Your task to perform on an android device: snooze an email in the gmail app Image 0: 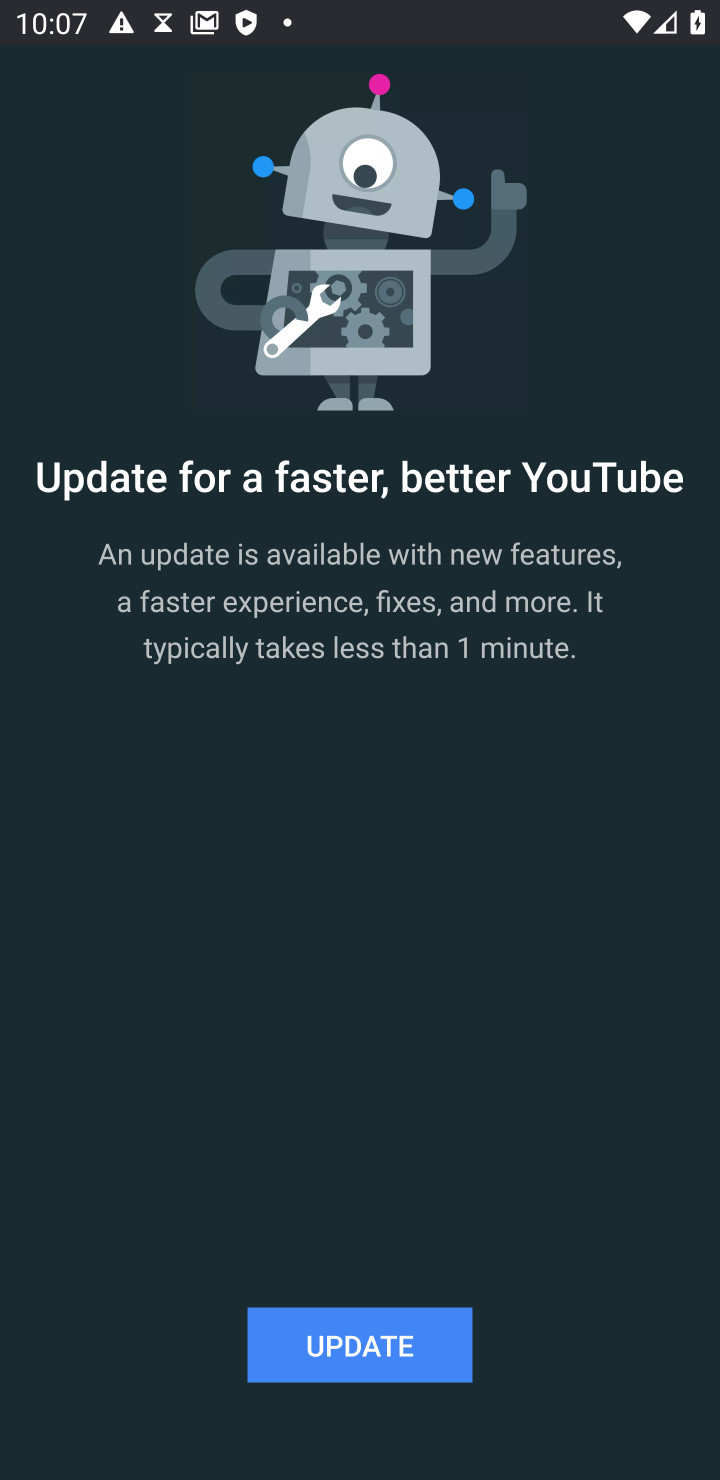
Step 0: press home button
Your task to perform on an android device: snooze an email in the gmail app Image 1: 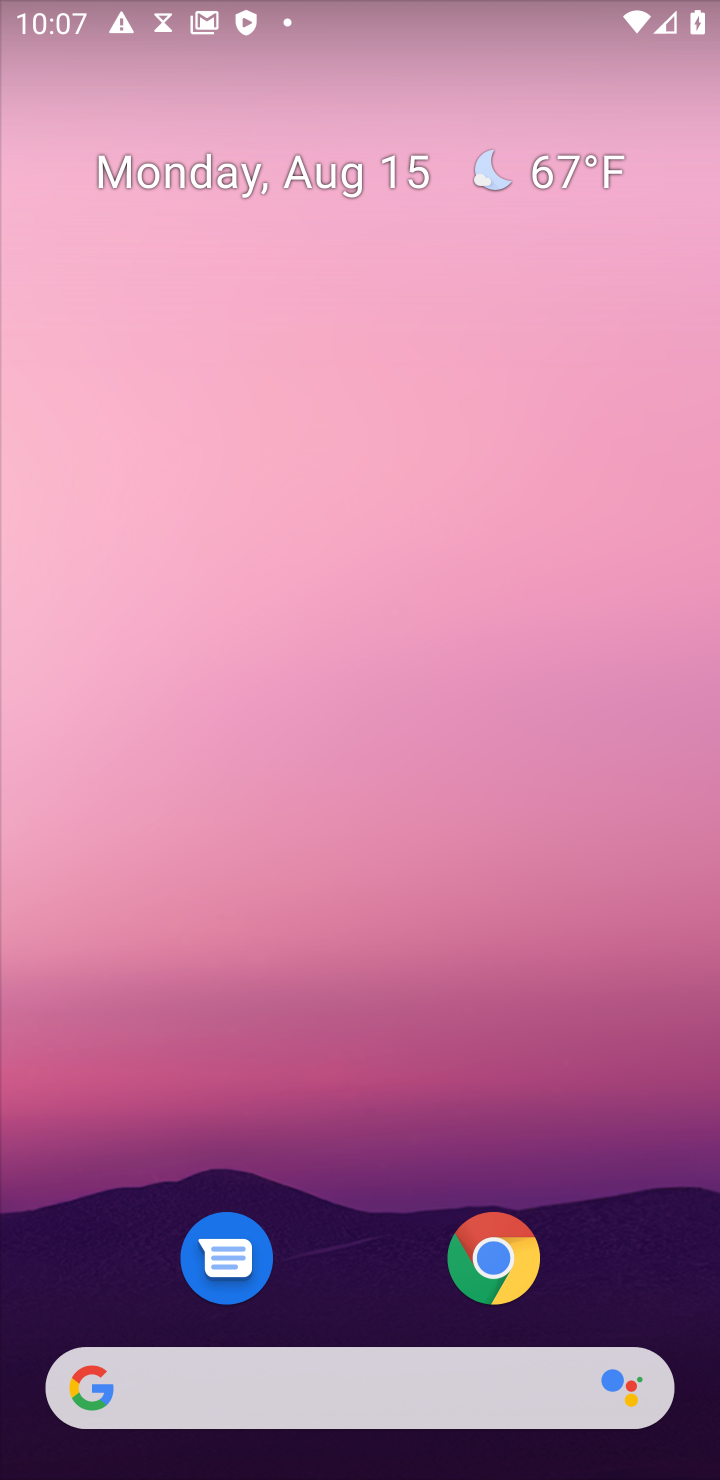
Step 1: drag from (400, 80) to (488, 36)
Your task to perform on an android device: snooze an email in the gmail app Image 2: 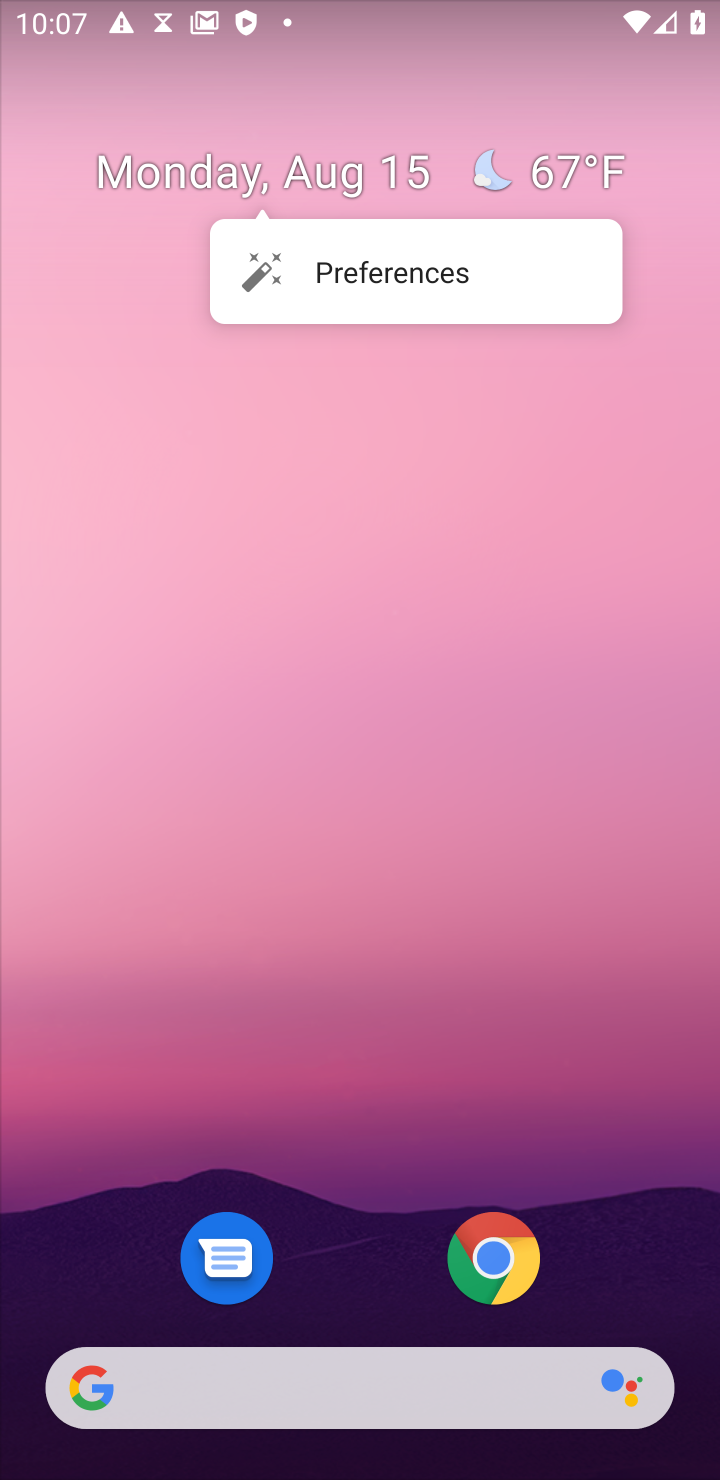
Step 2: click (357, 1293)
Your task to perform on an android device: snooze an email in the gmail app Image 3: 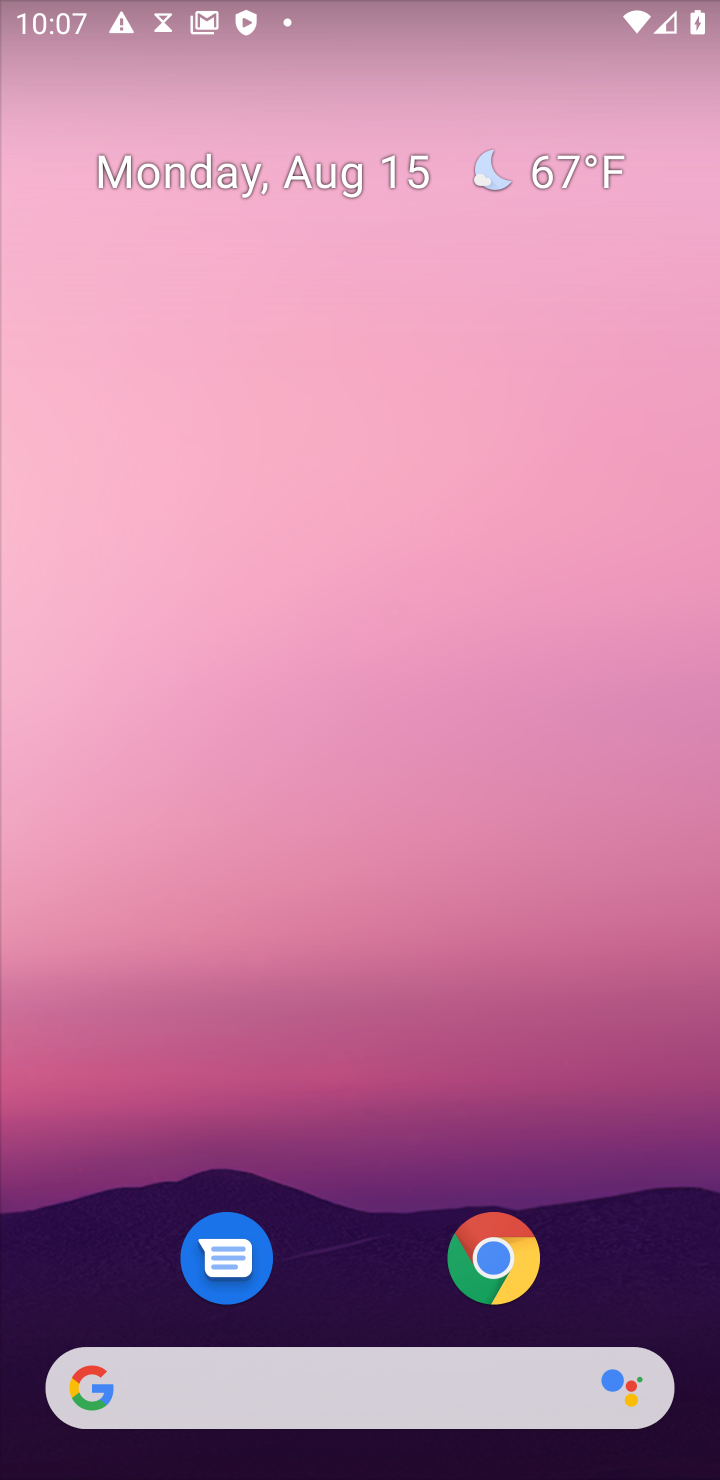
Step 3: drag from (357, 1166) to (672, 4)
Your task to perform on an android device: snooze an email in the gmail app Image 4: 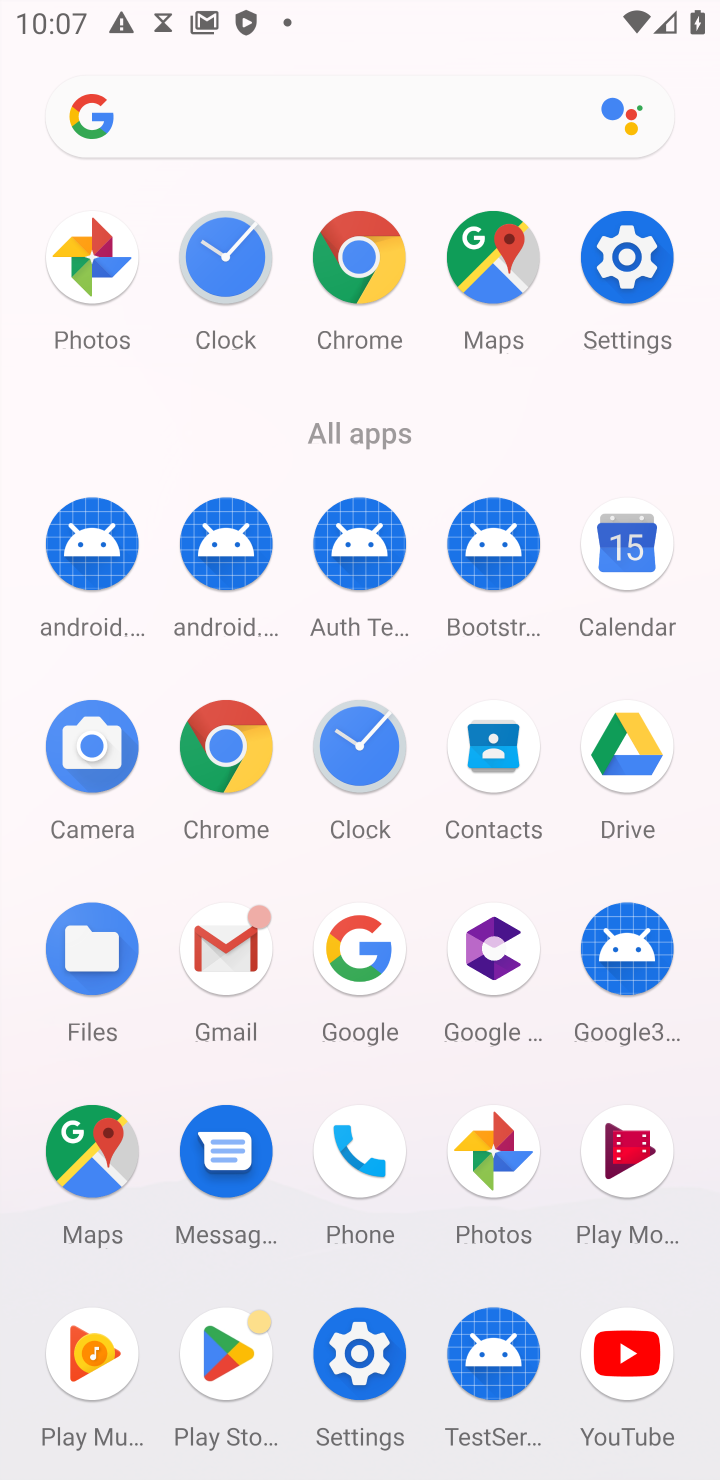
Step 4: click (215, 961)
Your task to perform on an android device: snooze an email in the gmail app Image 5: 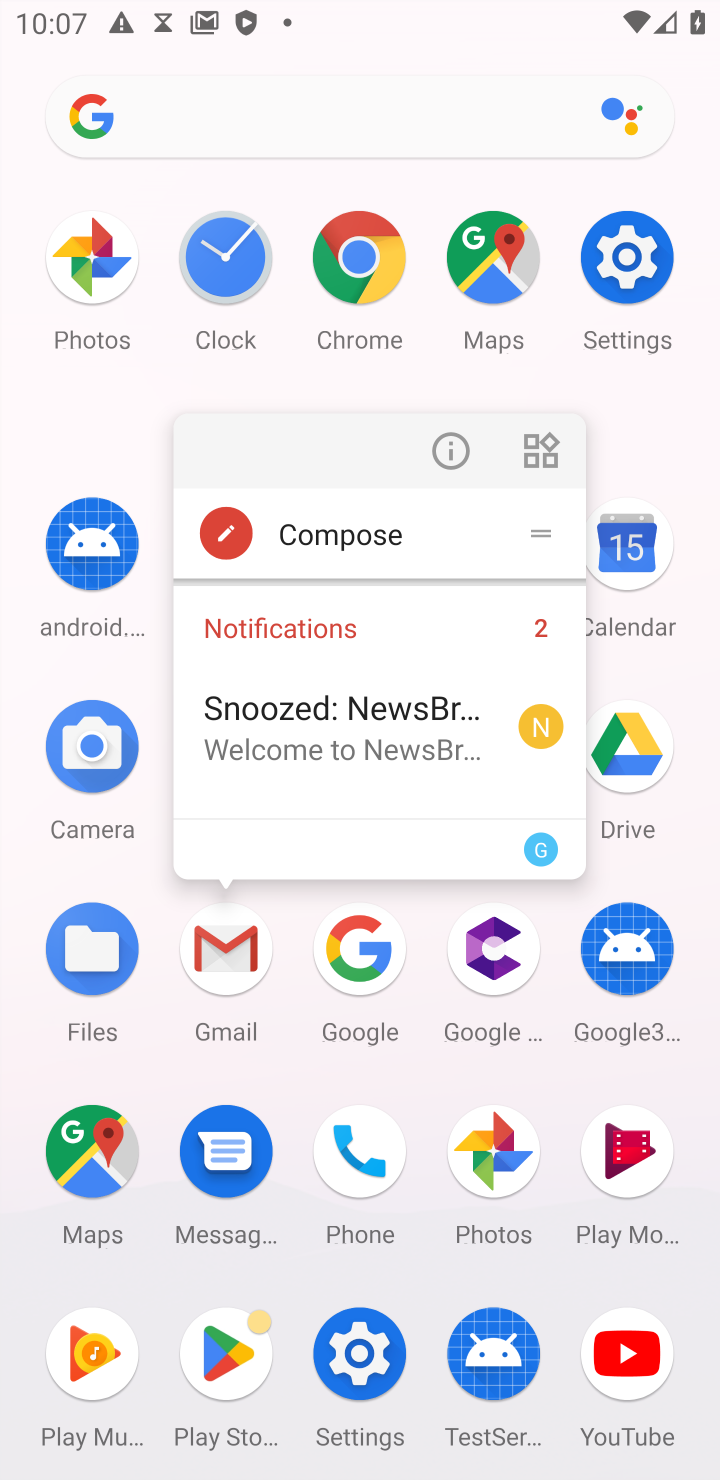
Step 5: click (221, 967)
Your task to perform on an android device: snooze an email in the gmail app Image 6: 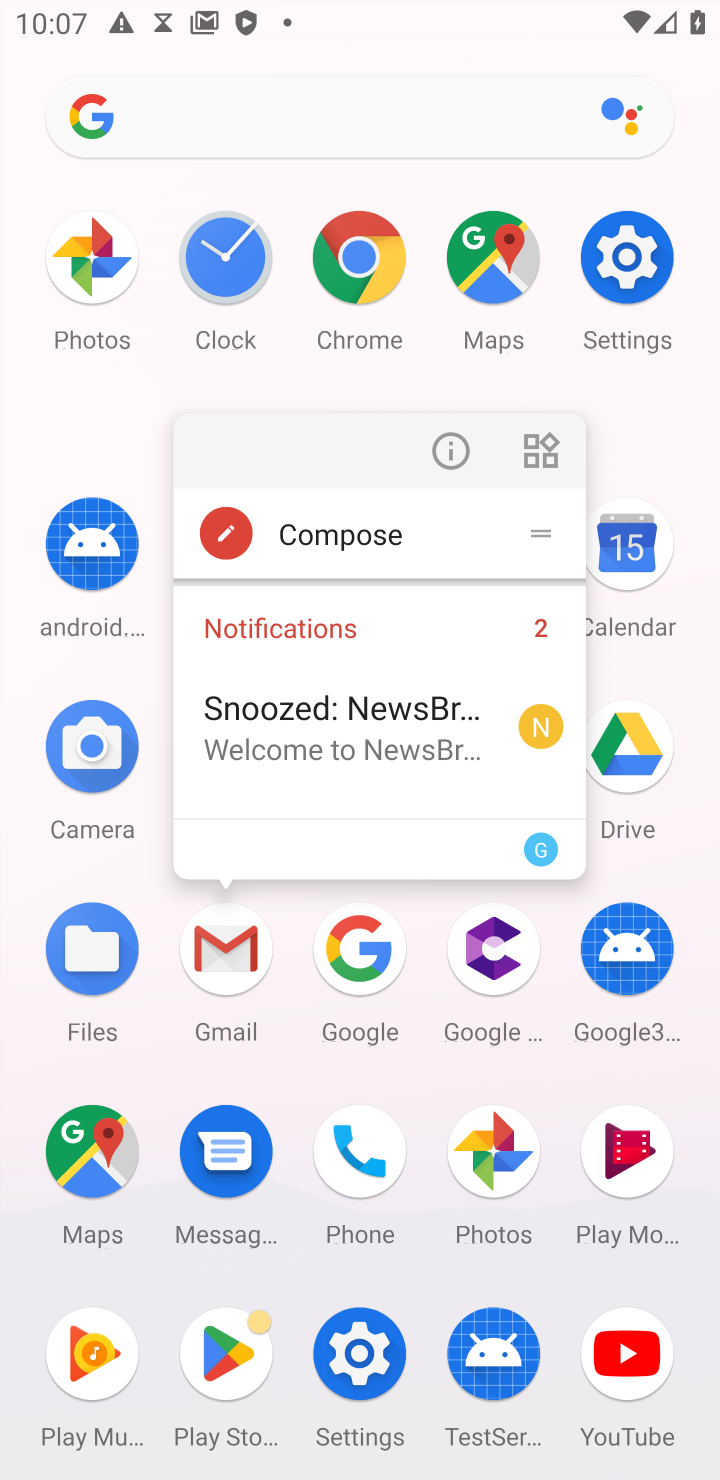
Step 6: click (230, 973)
Your task to perform on an android device: snooze an email in the gmail app Image 7: 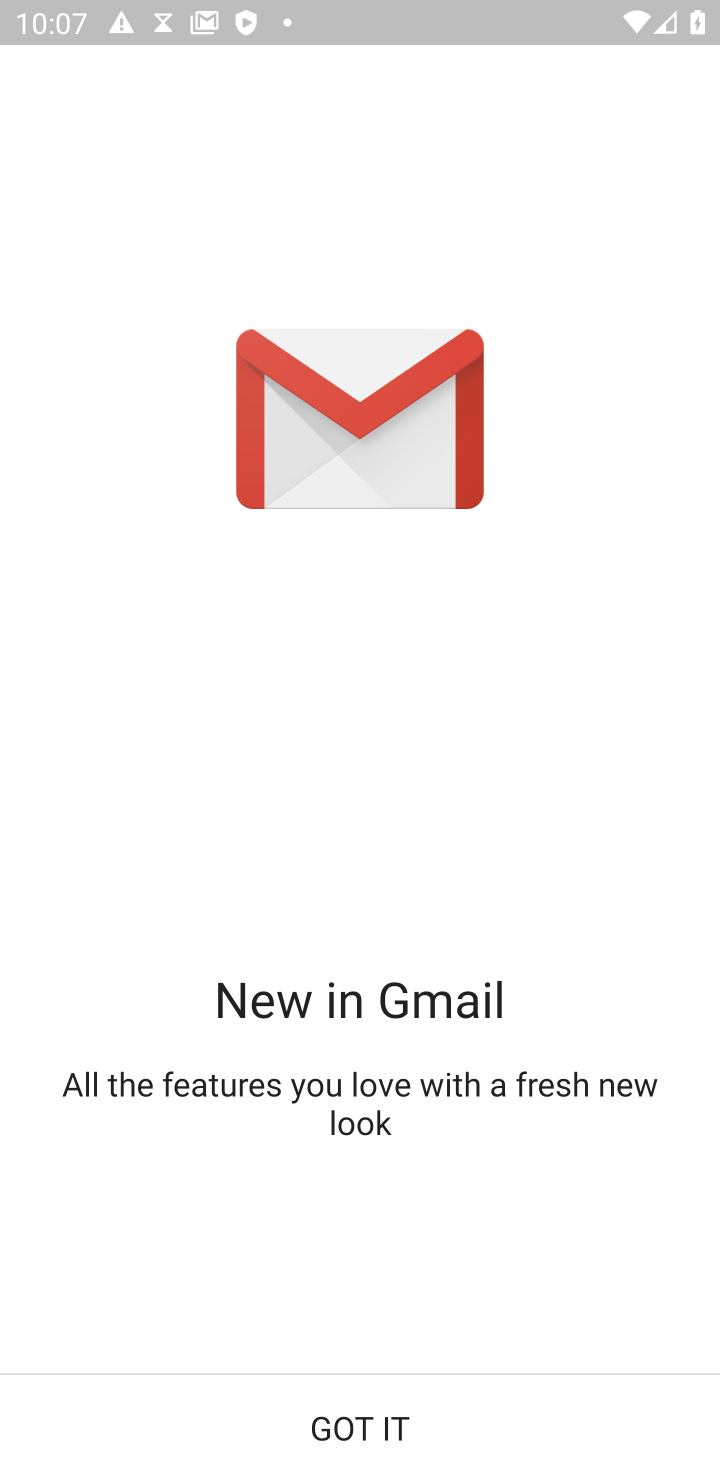
Step 7: click (420, 1435)
Your task to perform on an android device: snooze an email in the gmail app Image 8: 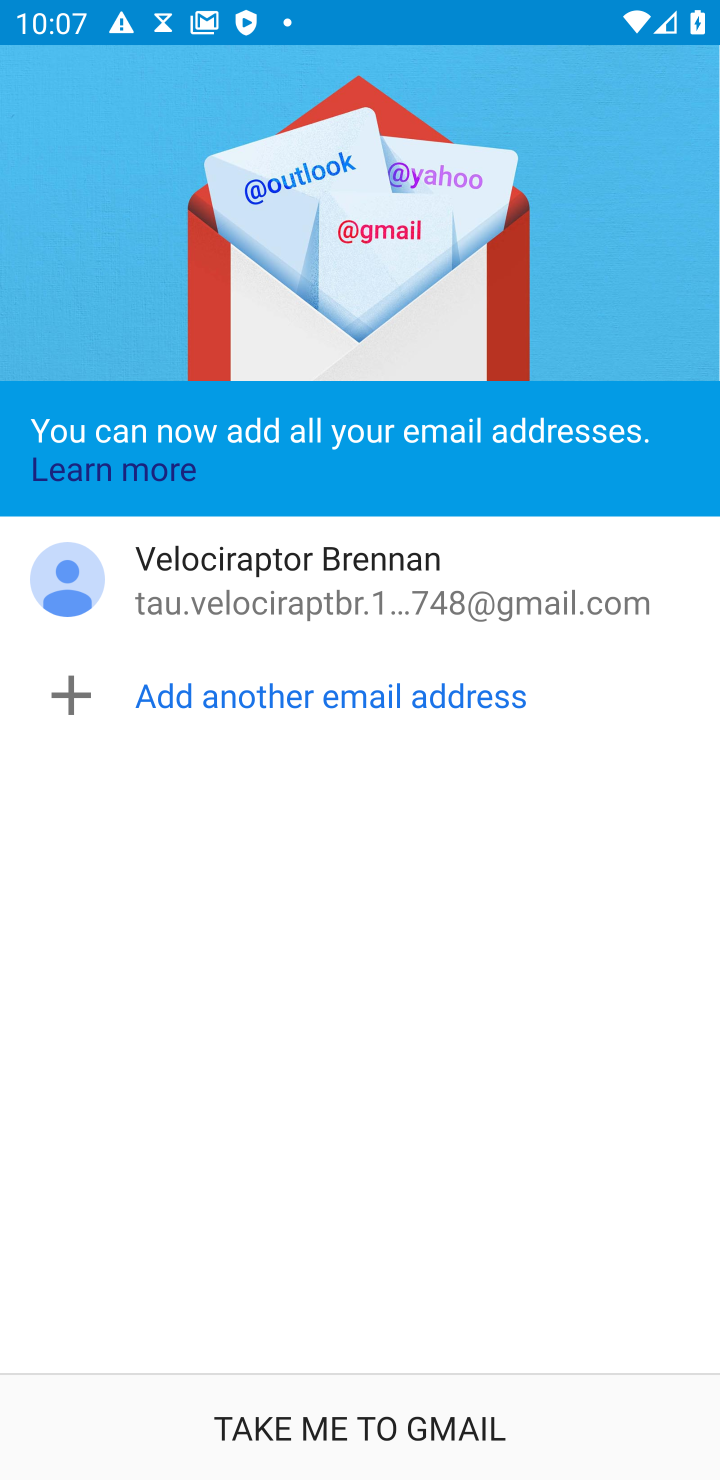
Step 8: click (403, 1430)
Your task to perform on an android device: snooze an email in the gmail app Image 9: 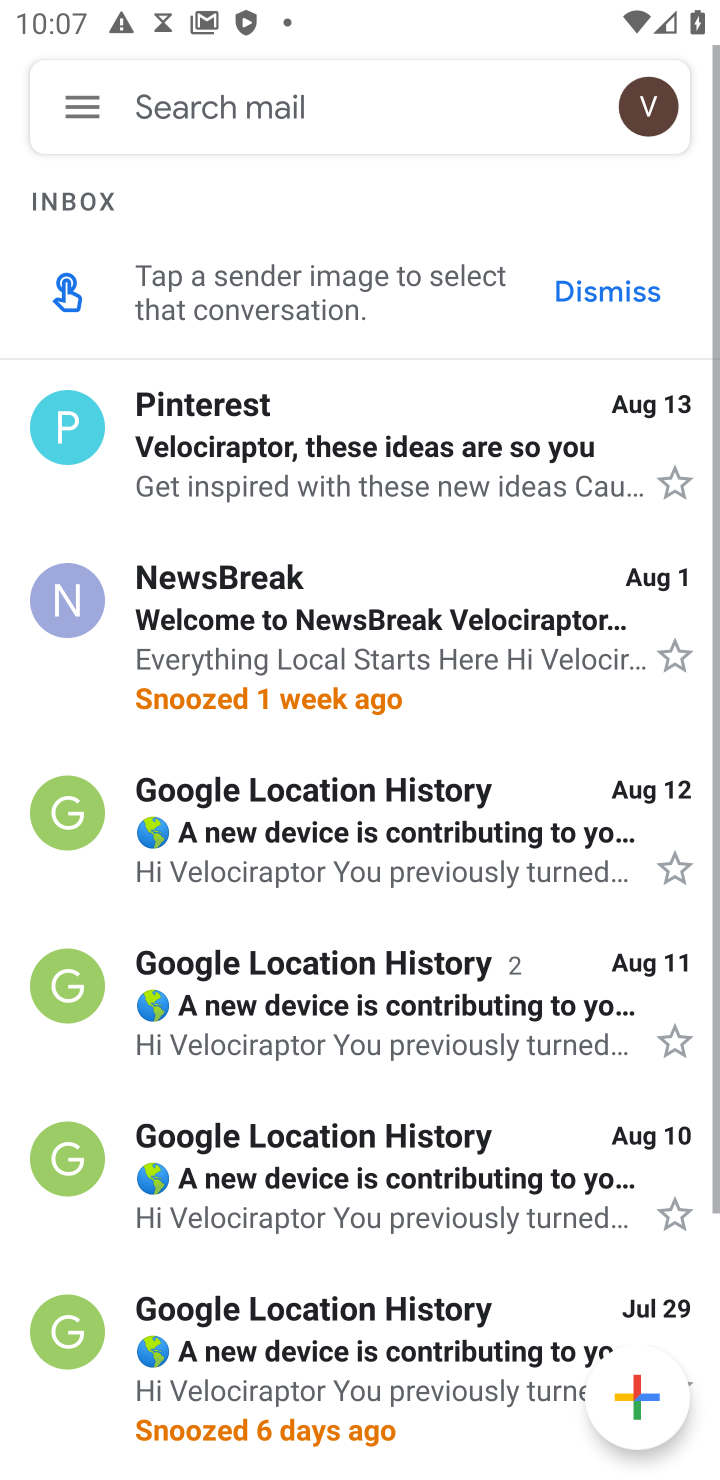
Step 9: click (77, 441)
Your task to perform on an android device: snooze an email in the gmail app Image 10: 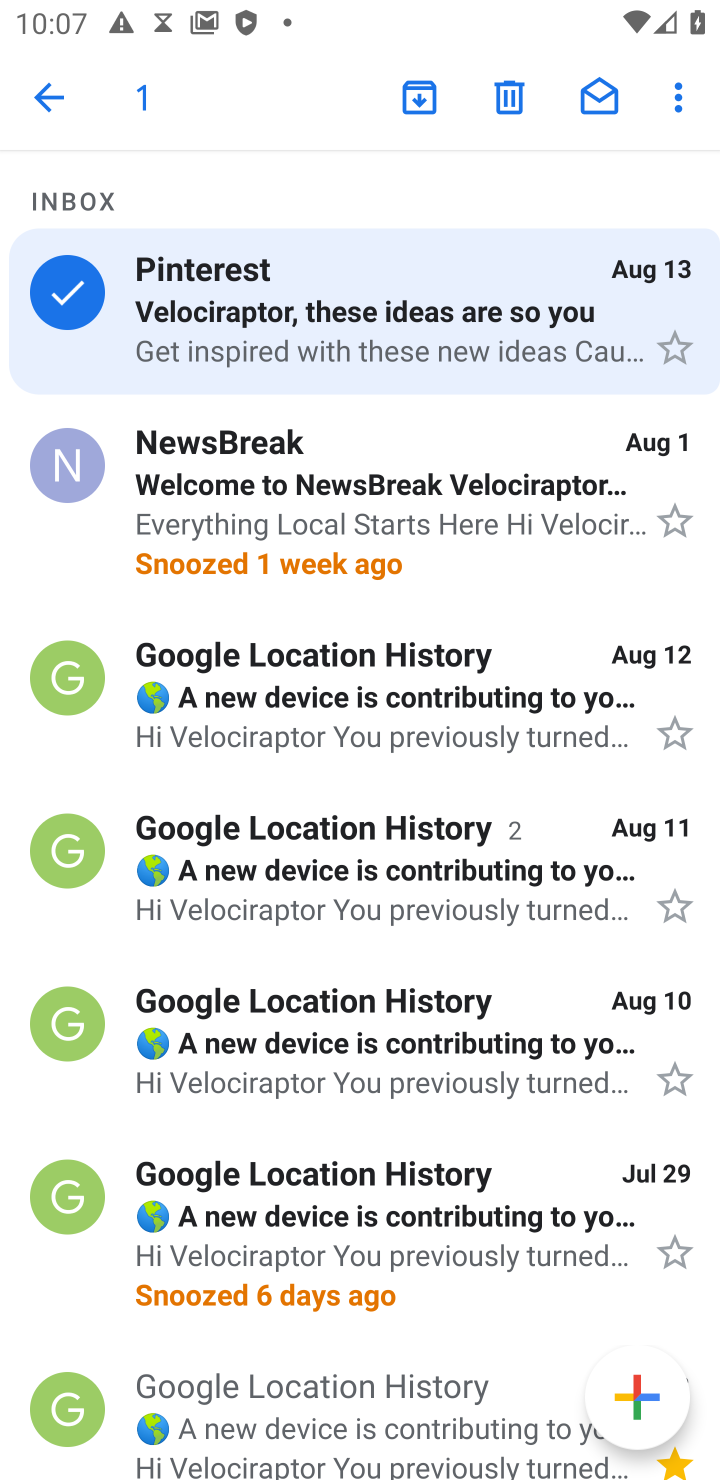
Step 10: click (677, 97)
Your task to perform on an android device: snooze an email in the gmail app Image 11: 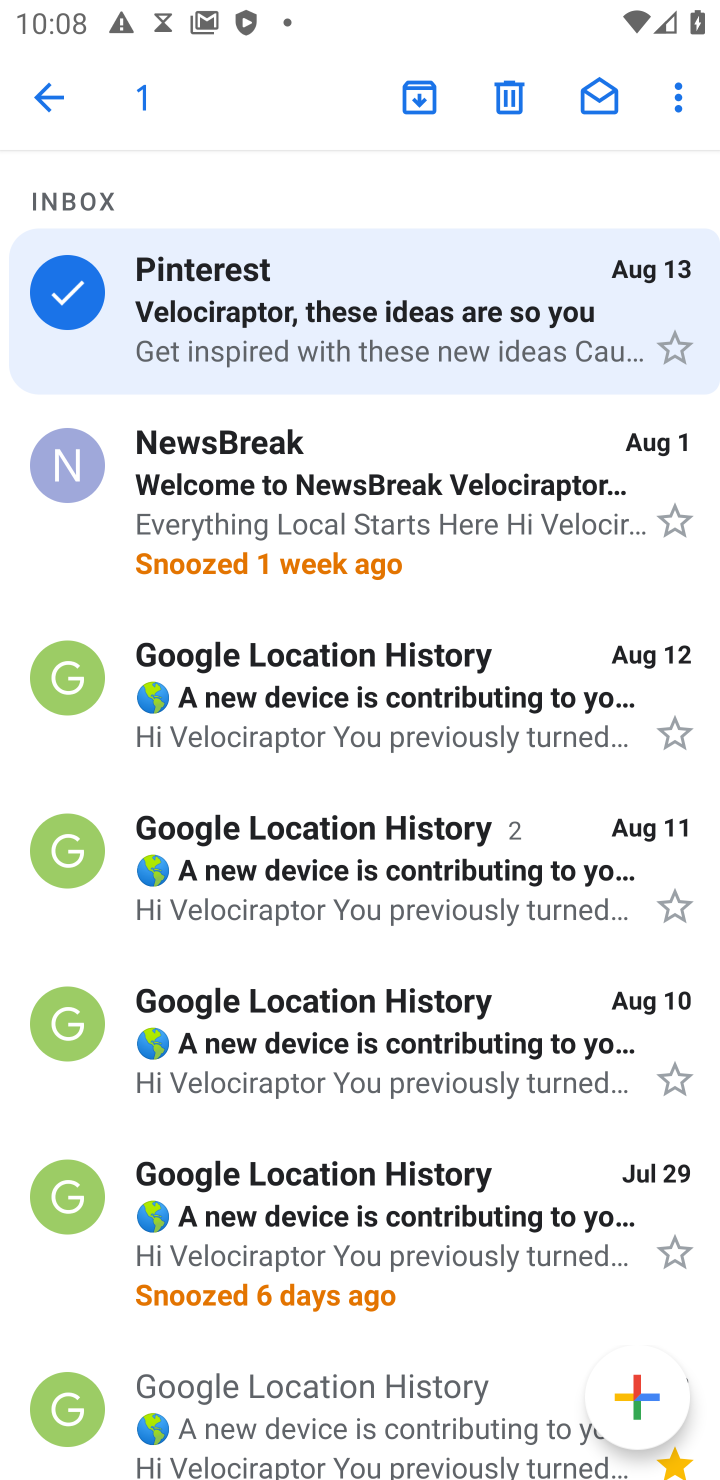
Step 11: click (682, 97)
Your task to perform on an android device: snooze an email in the gmail app Image 12: 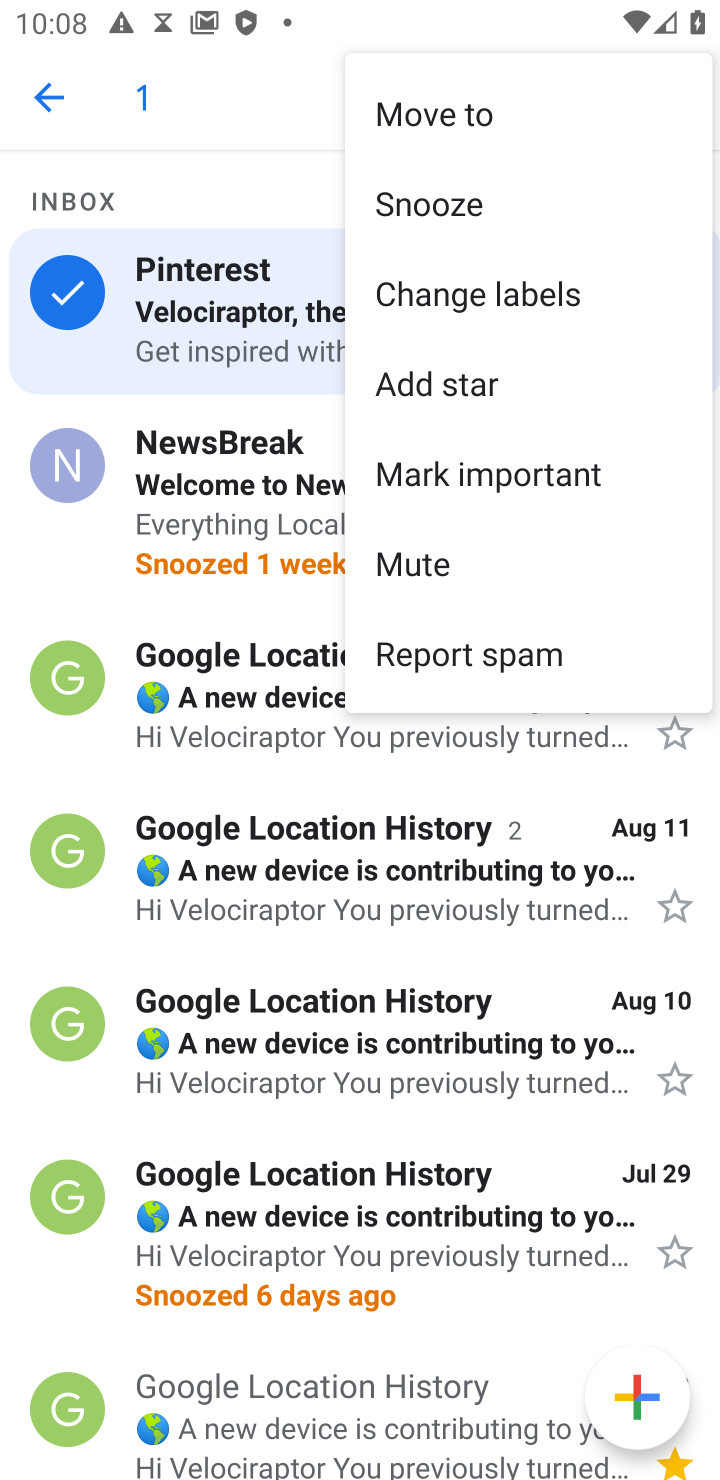
Step 12: click (457, 212)
Your task to perform on an android device: snooze an email in the gmail app Image 13: 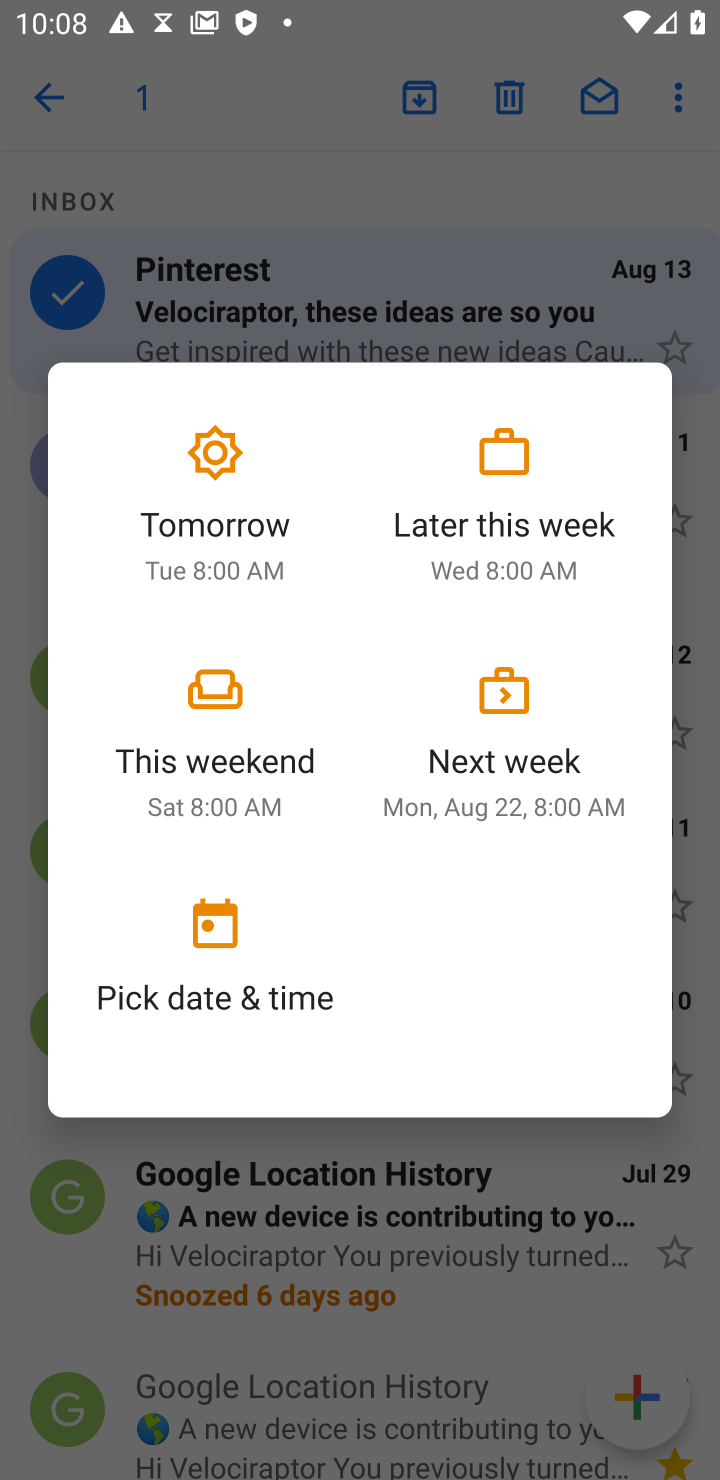
Step 13: click (234, 525)
Your task to perform on an android device: snooze an email in the gmail app Image 14: 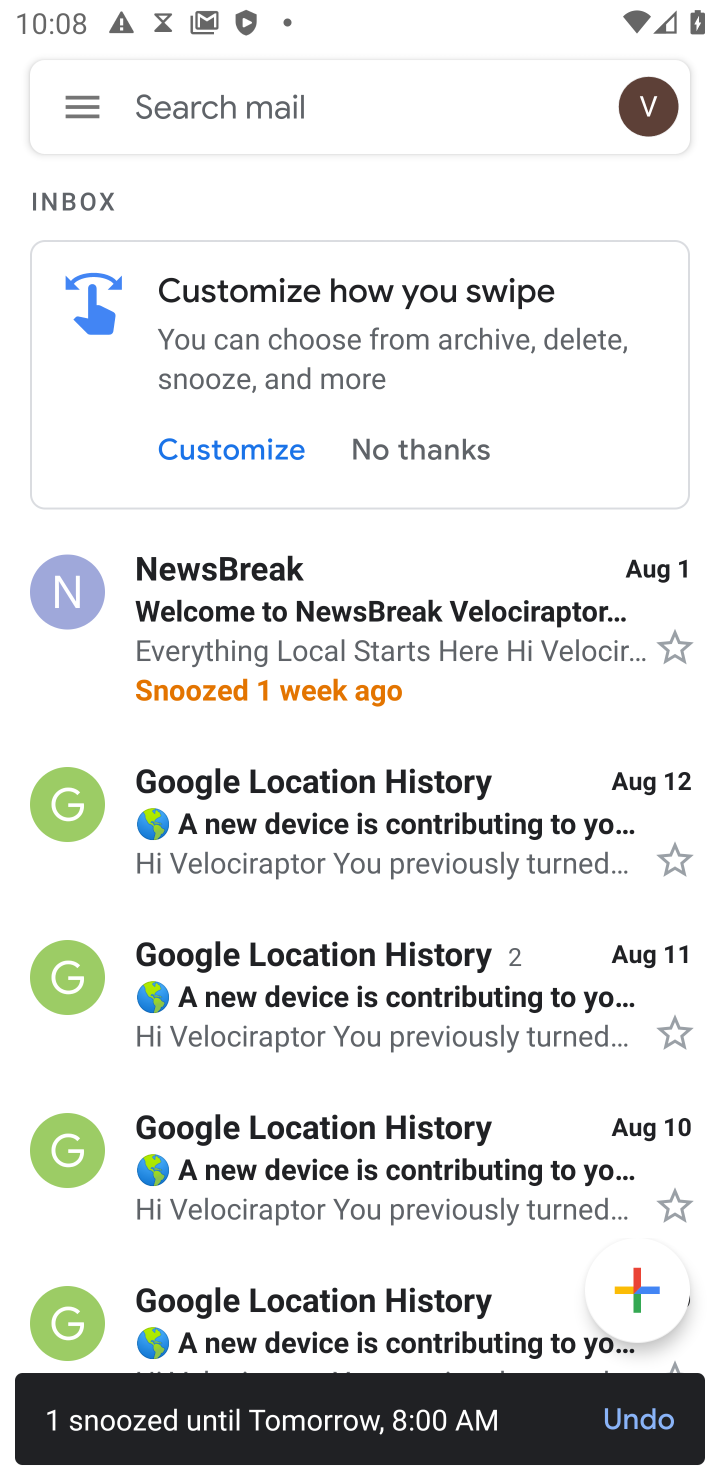
Step 14: task complete